Your task to perform on an android device: open chrome privacy settings Image 0: 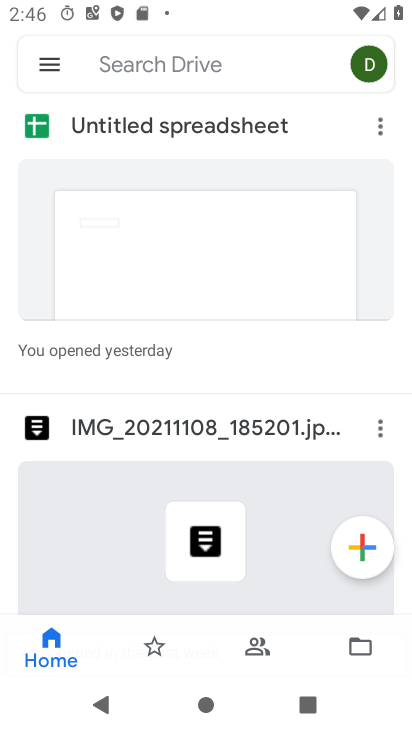
Step 0: press home button
Your task to perform on an android device: open chrome privacy settings Image 1: 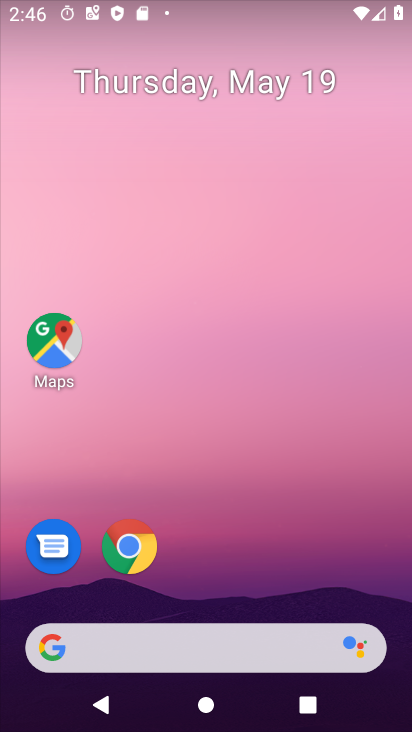
Step 1: click (119, 544)
Your task to perform on an android device: open chrome privacy settings Image 2: 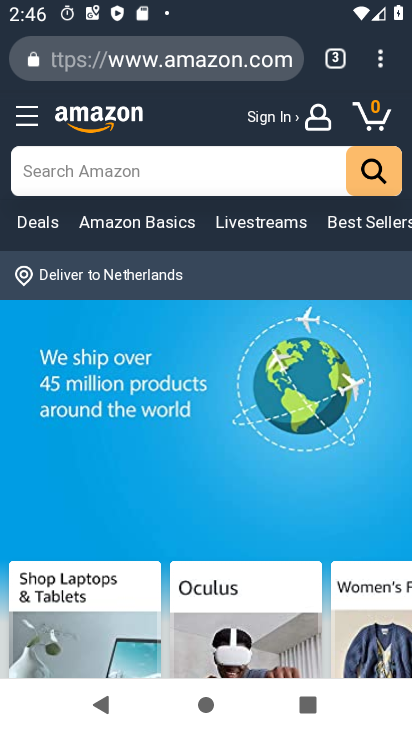
Step 2: click (392, 56)
Your task to perform on an android device: open chrome privacy settings Image 3: 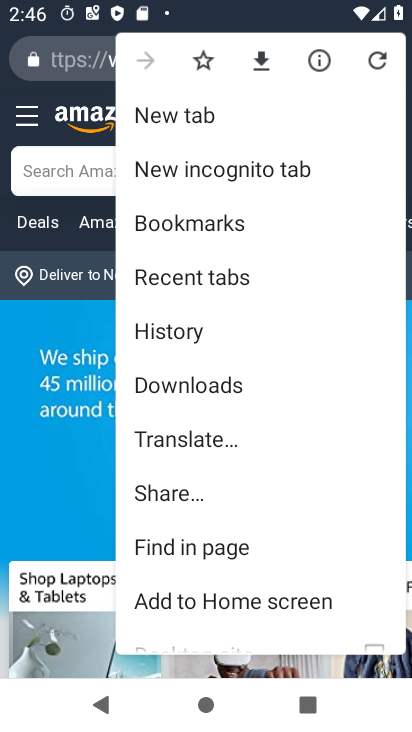
Step 3: drag from (160, 621) to (227, 353)
Your task to perform on an android device: open chrome privacy settings Image 4: 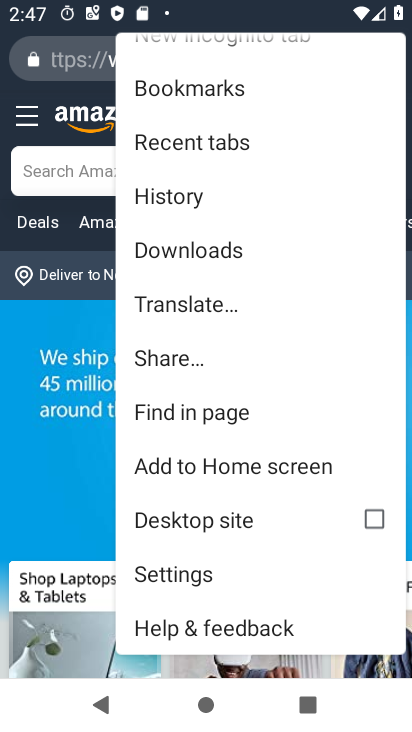
Step 4: drag from (187, 579) to (311, 61)
Your task to perform on an android device: open chrome privacy settings Image 5: 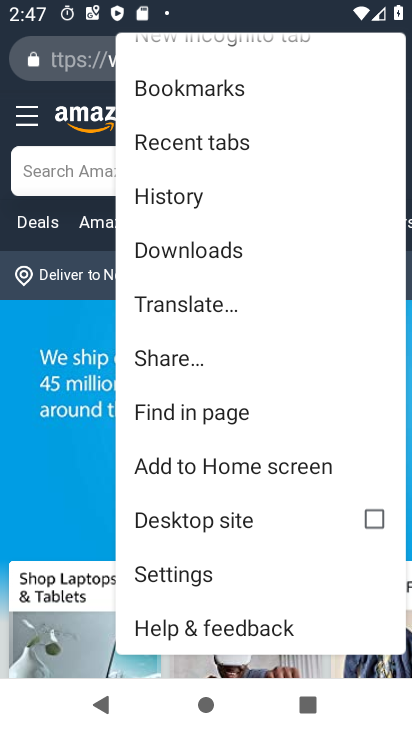
Step 5: click (173, 579)
Your task to perform on an android device: open chrome privacy settings Image 6: 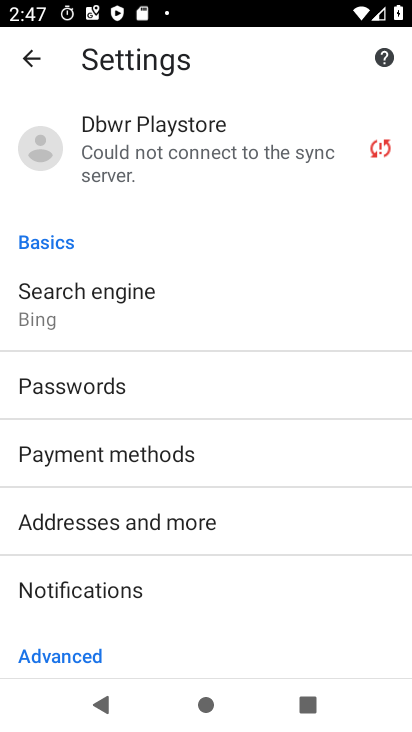
Step 6: drag from (133, 641) to (196, 215)
Your task to perform on an android device: open chrome privacy settings Image 7: 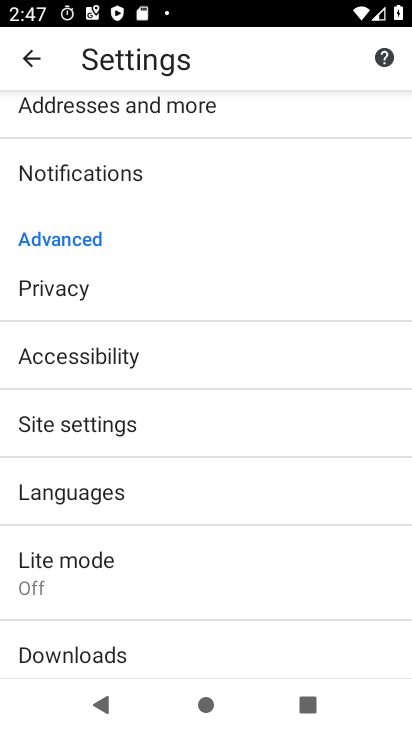
Step 7: click (156, 268)
Your task to perform on an android device: open chrome privacy settings Image 8: 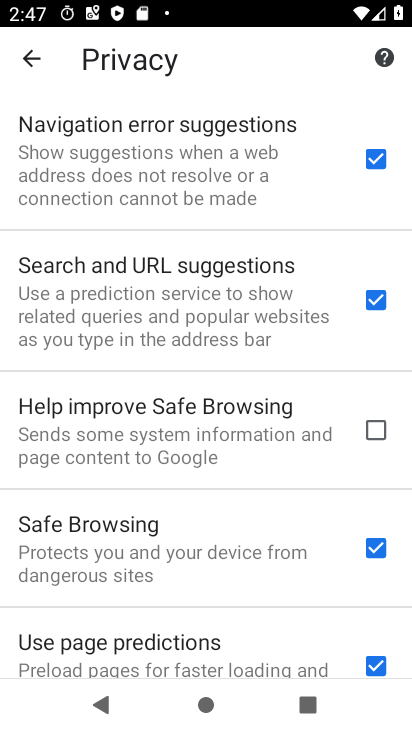
Step 8: task complete